Your task to perform on an android device: See recent photos Image 0: 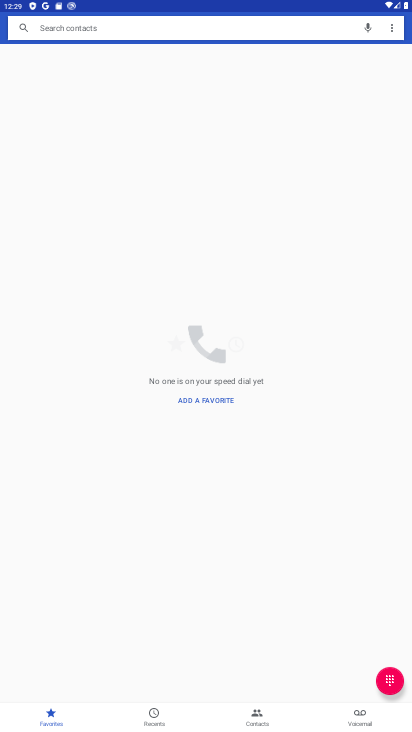
Step 0: press home button
Your task to perform on an android device: See recent photos Image 1: 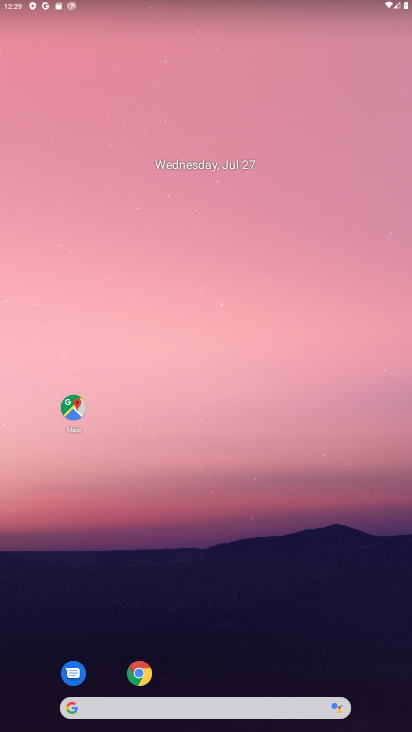
Step 1: drag from (247, 660) to (231, 55)
Your task to perform on an android device: See recent photos Image 2: 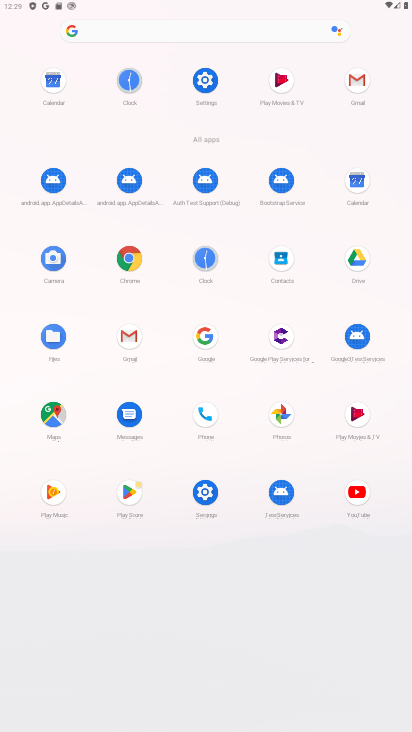
Step 2: click (284, 413)
Your task to perform on an android device: See recent photos Image 3: 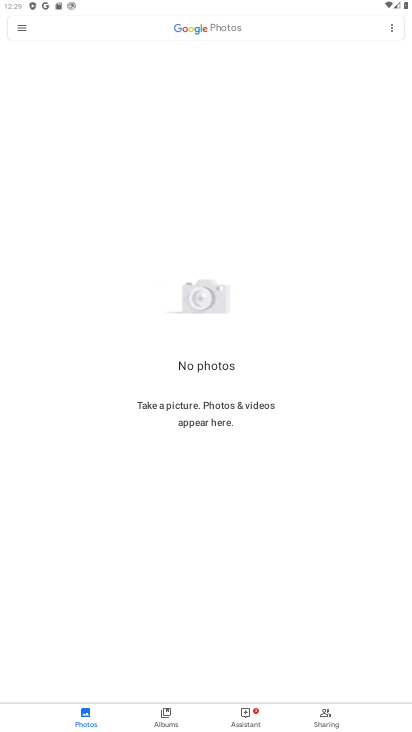
Step 3: task complete